Your task to perform on an android device: Search for Italian restaurants on Maps Image 0: 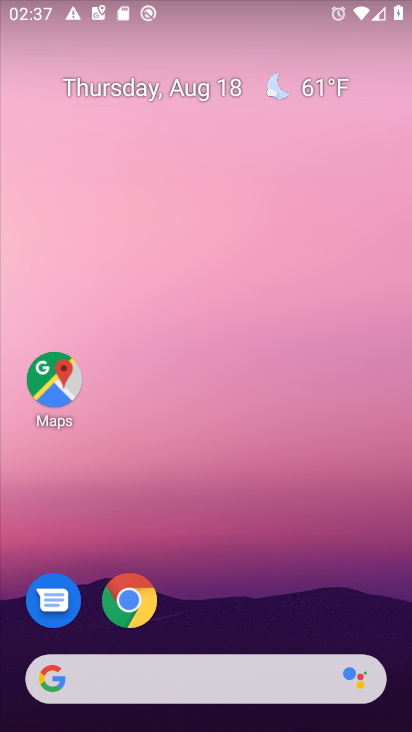
Step 0: press home button
Your task to perform on an android device: Search for Italian restaurants on Maps Image 1: 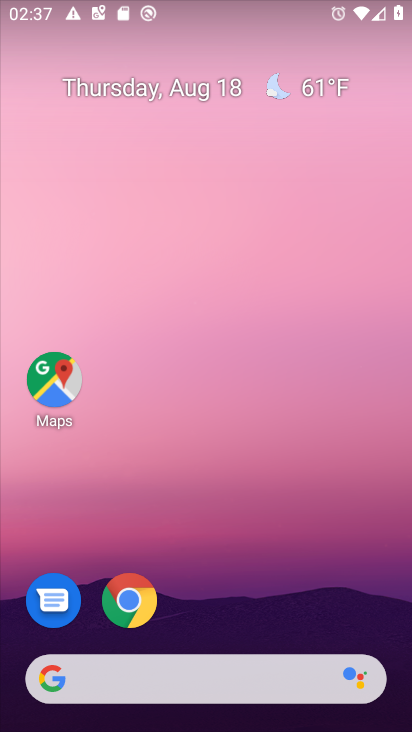
Step 1: click (68, 373)
Your task to perform on an android device: Search for Italian restaurants on Maps Image 2: 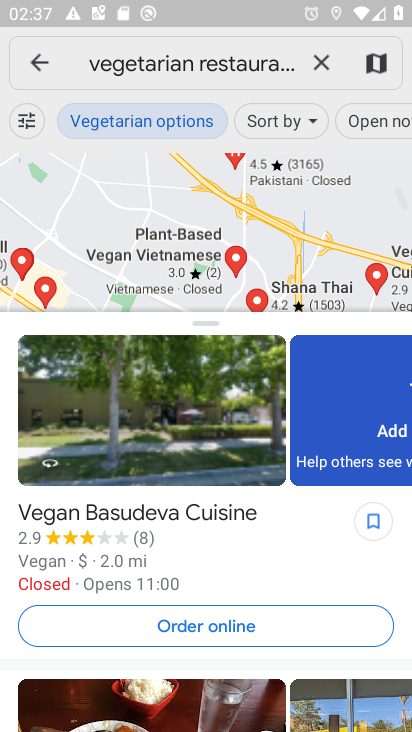
Step 2: click (318, 53)
Your task to perform on an android device: Search for Italian restaurants on Maps Image 3: 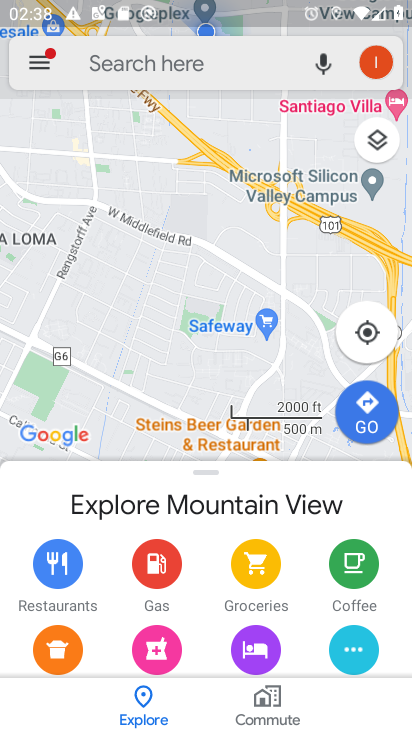
Step 3: click (185, 64)
Your task to perform on an android device: Search for Italian restaurants on Maps Image 4: 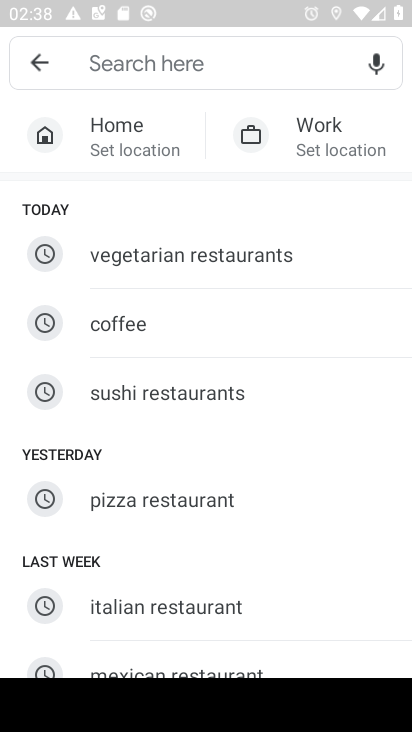
Step 4: click (137, 603)
Your task to perform on an android device: Search for Italian restaurants on Maps Image 5: 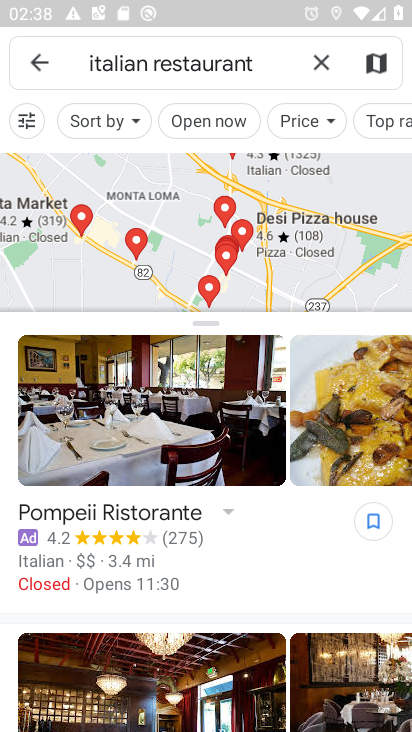
Step 5: task complete